Your task to perform on an android device: turn on notifications settings in the gmail app Image 0: 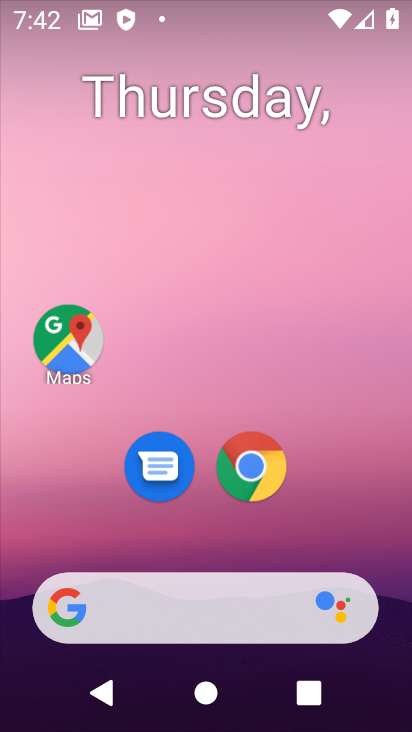
Step 0: drag from (359, 509) to (338, 66)
Your task to perform on an android device: turn on notifications settings in the gmail app Image 1: 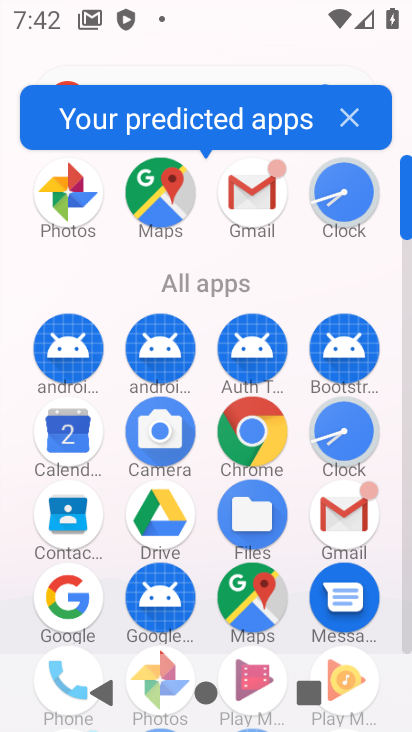
Step 1: click (242, 201)
Your task to perform on an android device: turn on notifications settings in the gmail app Image 2: 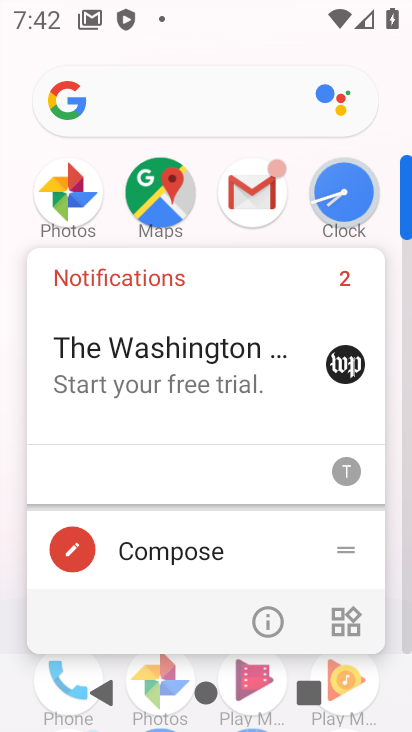
Step 2: click (246, 191)
Your task to perform on an android device: turn on notifications settings in the gmail app Image 3: 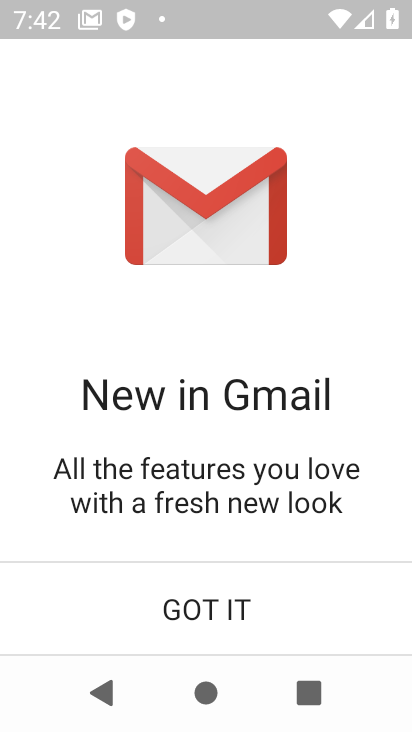
Step 3: click (218, 610)
Your task to perform on an android device: turn on notifications settings in the gmail app Image 4: 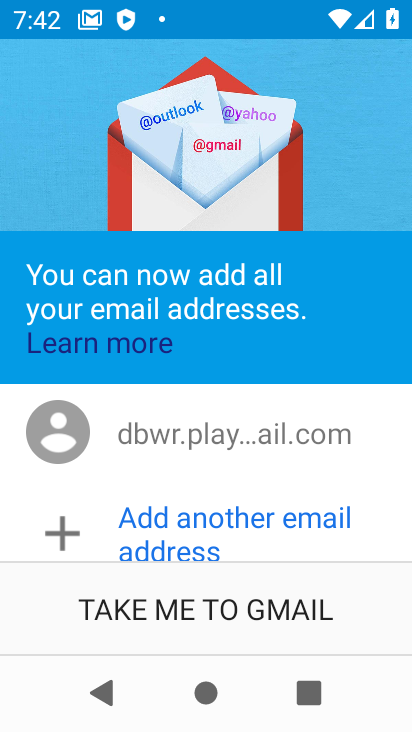
Step 4: click (233, 617)
Your task to perform on an android device: turn on notifications settings in the gmail app Image 5: 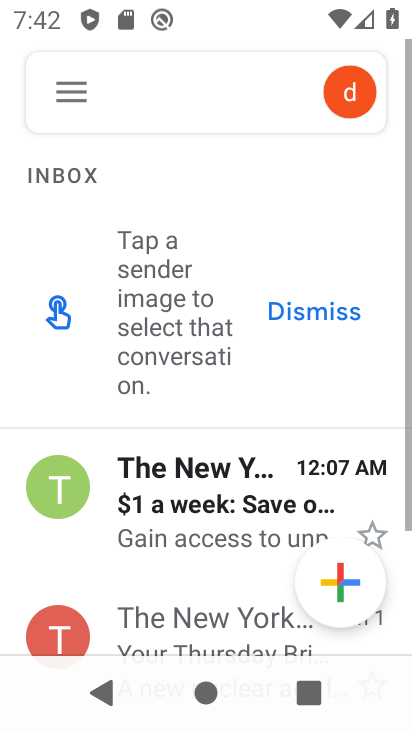
Step 5: drag from (74, 89) to (103, 486)
Your task to perform on an android device: turn on notifications settings in the gmail app Image 6: 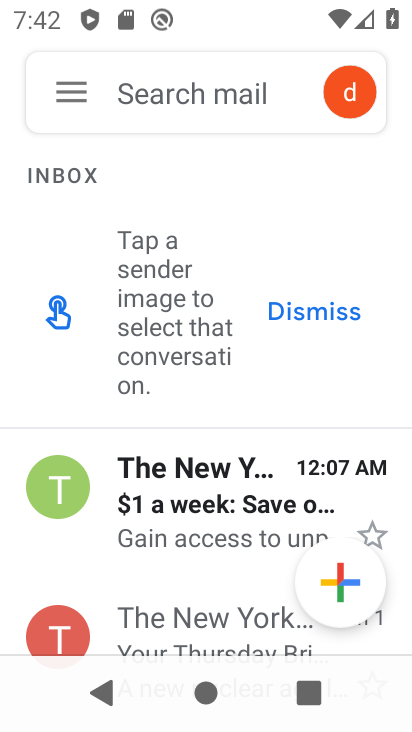
Step 6: click (69, 87)
Your task to perform on an android device: turn on notifications settings in the gmail app Image 7: 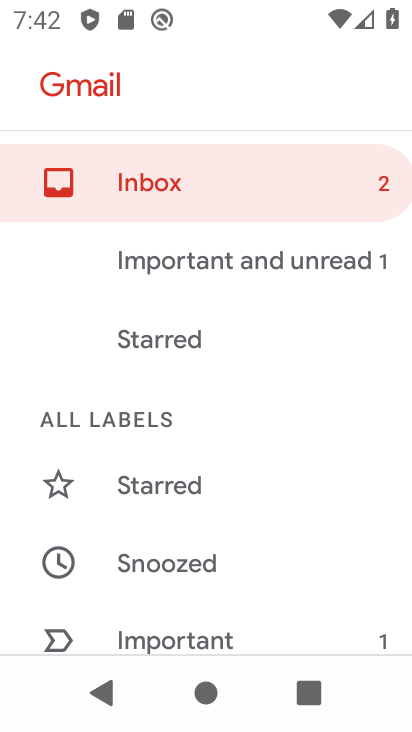
Step 7: drag from (318, 609) to (347, 21)
Your task to perform on an android device: turn on notifications settings in the gmail app Image 8: 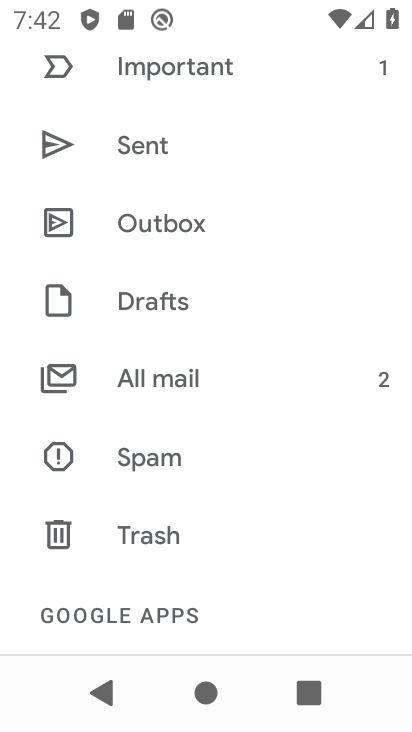
Step 8: drag from (331, 604) to (334, 118)
Your task to perform on an android device: turn on notifications settings in the gmail app Image 9: 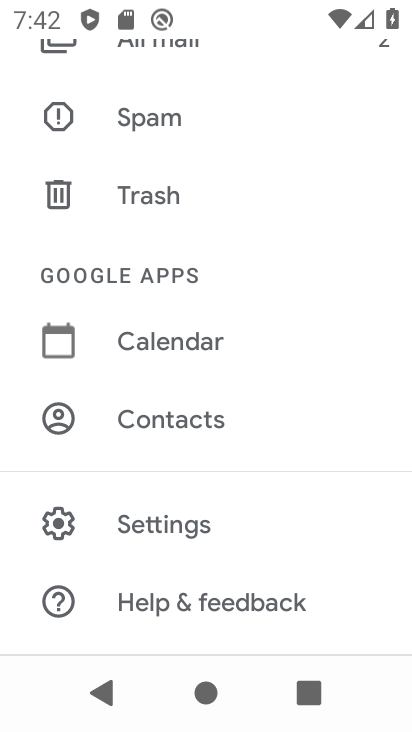
Step 9: click (170, 534)
Your task to perform on an android device: turn on notifications settings in the gmail app Image 10: 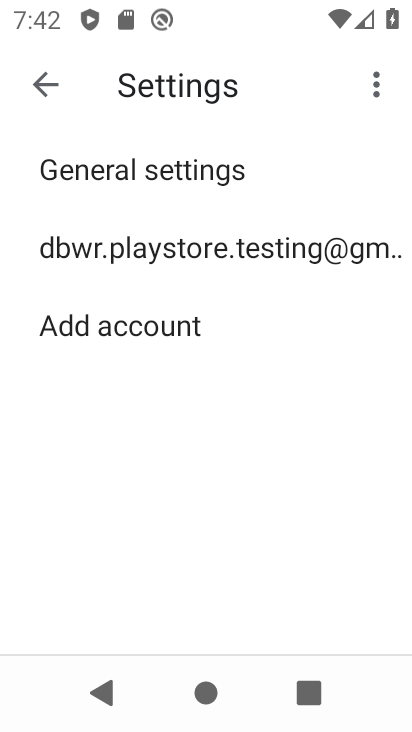
Step 10: click (167, 259)
Your task to perform on an android device: turn on notifications settings in the gmail app Image 11: 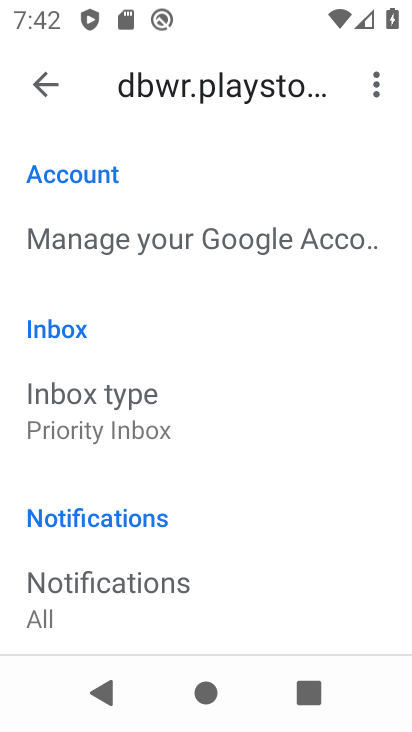
Step 11: drag from (273, 601) to (326, 85)
Your task to perform on an android device: turn on notifications settings in the gmail app Image 12: 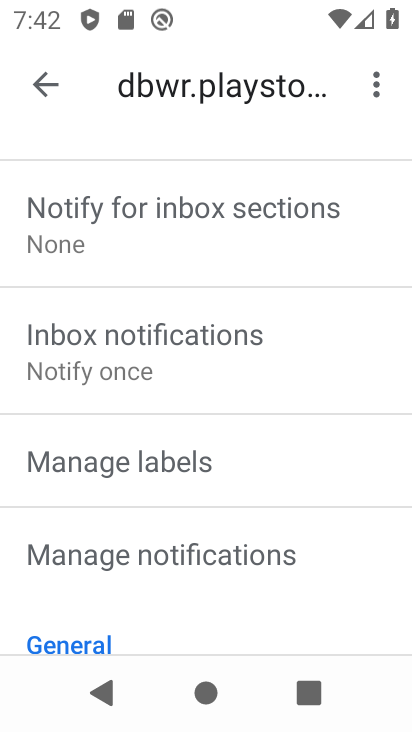
Step 12: click (268, 563)
Your task to perform on an android device: turn on notifications settings in the gmail app Image 13: 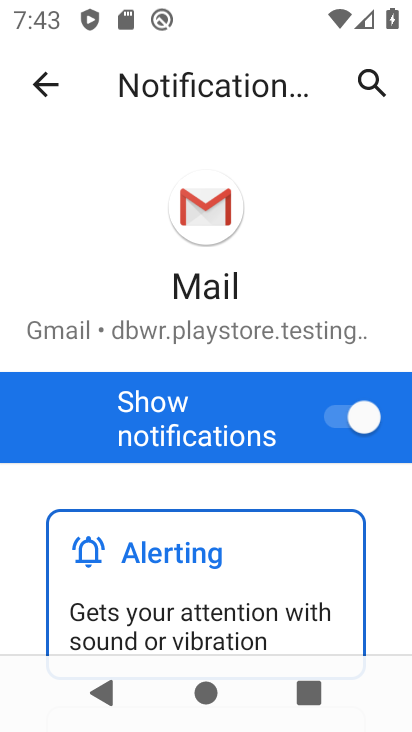
Step 13: task complete